Your task to perform on an android device: Open the map Image 0: 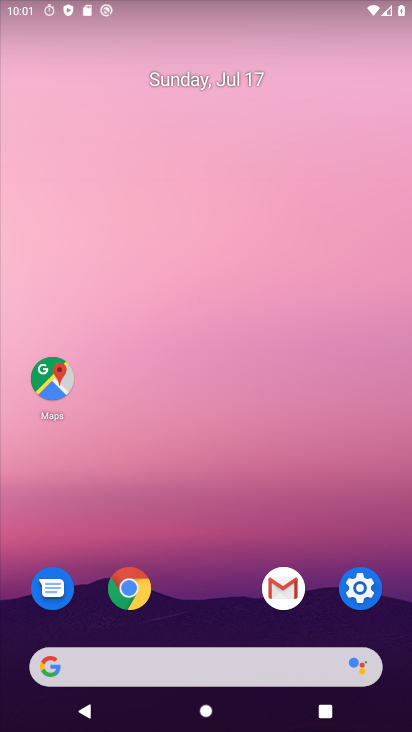
Step 0: click (48, 393)
Your task to perform on an android device: Open the map Image 1: 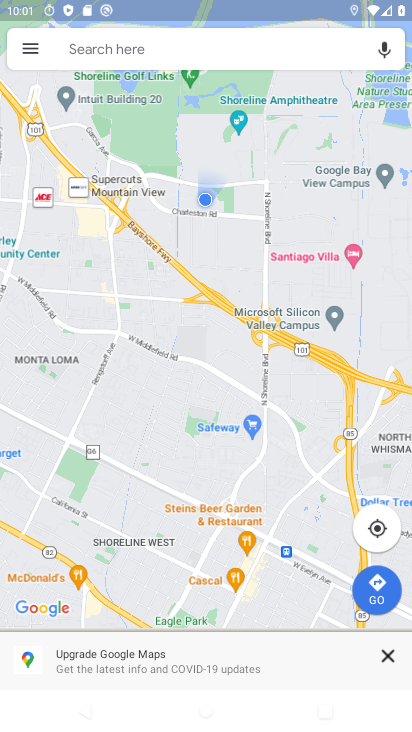
Step 1: click (27, 50)
Your task to perform on an android device: Open the map Image 2: 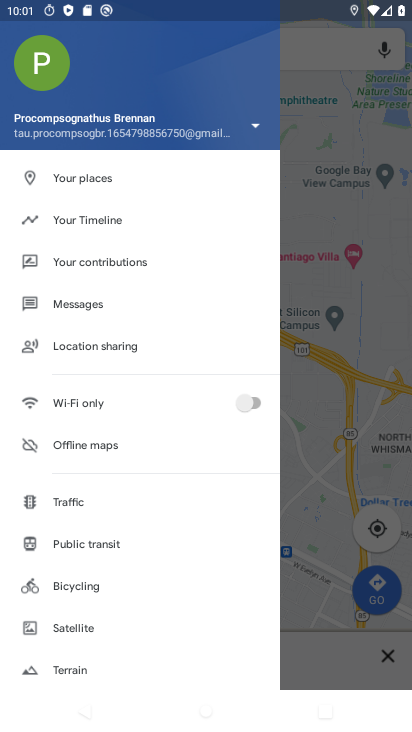
Step 2: click (367, 456)
Your task to perform on an android device: Open the map Image 3: 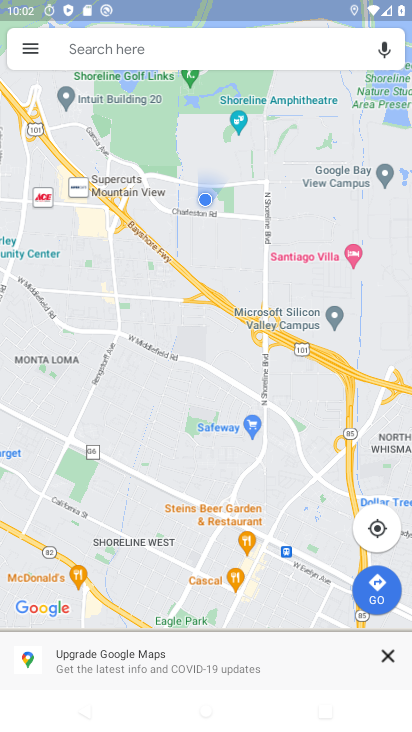
Step 3: task complete